Your task to perform on an android device: toggle airplane mode Image 0: 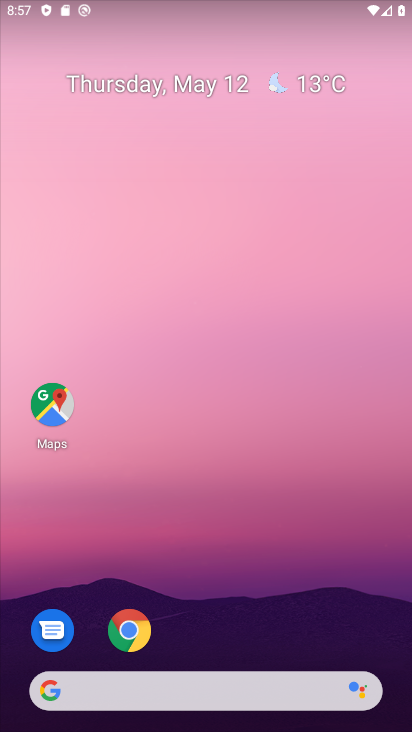
Step 0: drag from (243, 9) to (294, 459)
Your task to perform on an android device: toggle airplane mode Image 1: 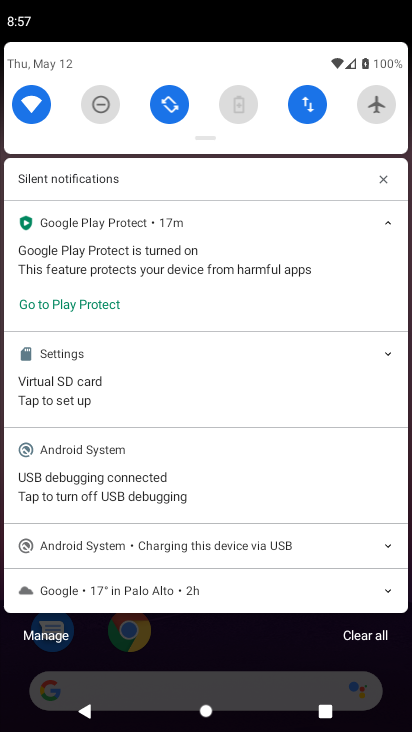
Step 1: click (377, 110)
Your task to perform on an android device: toggle airplane mode Image 2: 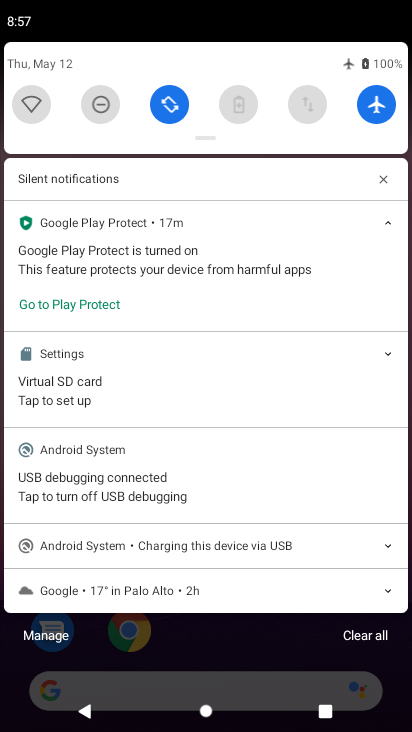
Step 2: task complete